Your task to perform on an android device: set default search engine in the chrome app Image 0: 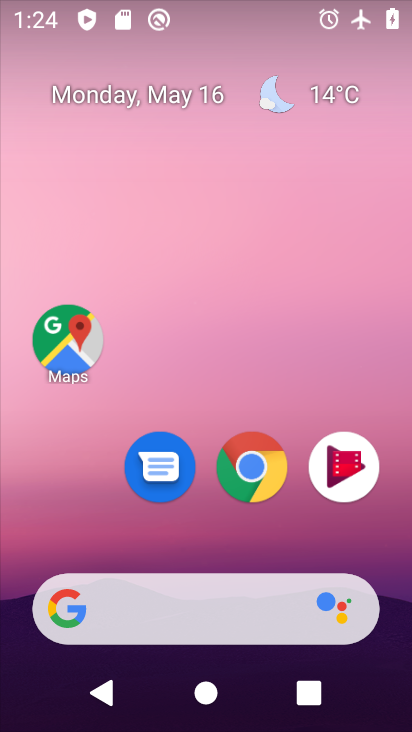
Step 0: drag from (225, 535) to (231, 173)
Your task to perform on an android device: set default search engine in the chrome app Image 1: 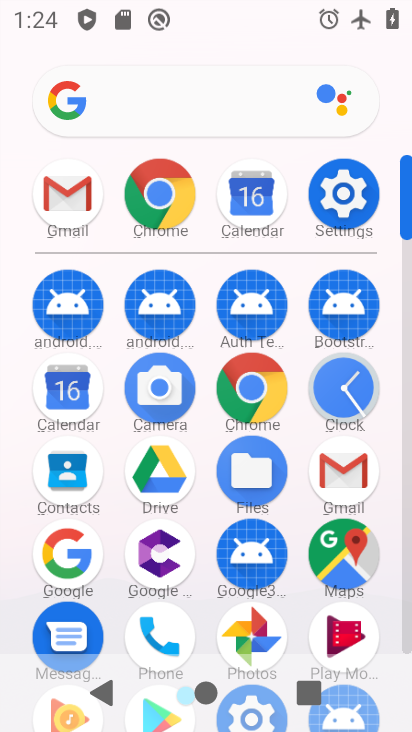
Step 1: click (145, 184)
Your task to perform on an android device: set default search engine in the chrome app Image 2: 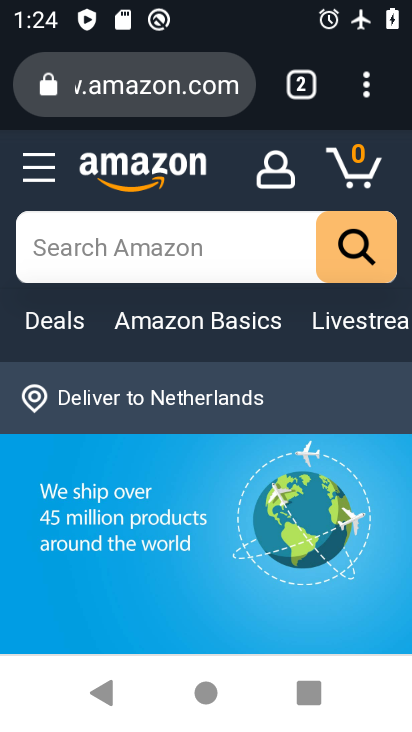
Step 2: click (359, 84)
Your task to perform on an android device: set default search engine in the chrome app Image 3: 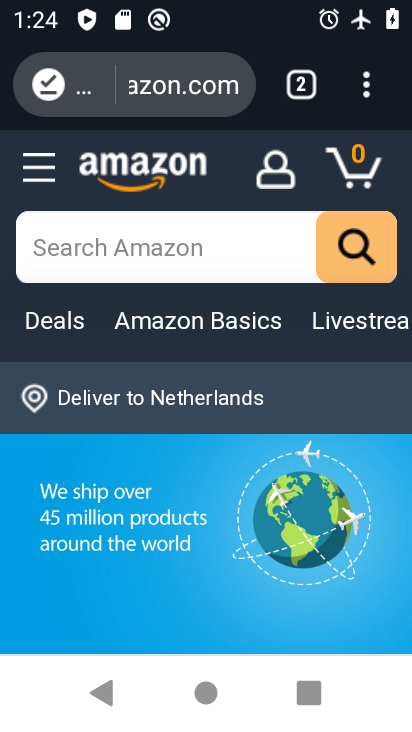
Step 3: click (361, 83)
Your task to perform on an android device: set default search engine in the chrome app Image 4: 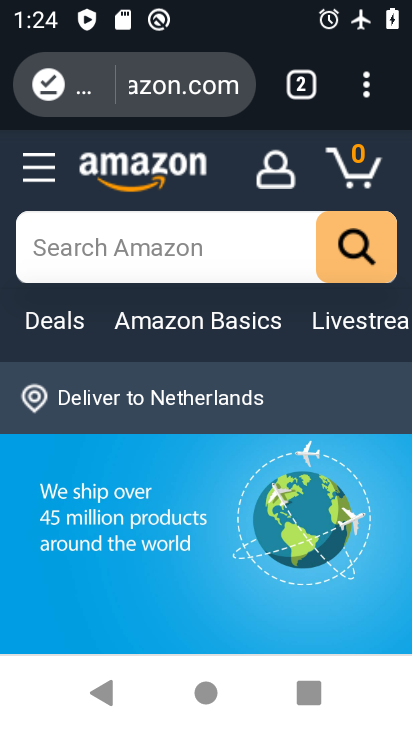
Step 4: click (355, 78)
Your task to perform on an android device: set default search engine in the chrome app Image 5: 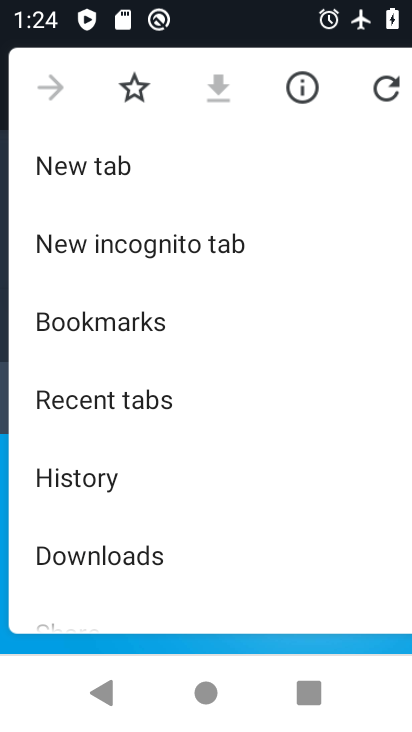
Step 5: drag from (119, 546) to (231, 217)
Your task to perform on an android device: set default search engine in the chrome app Image 6: 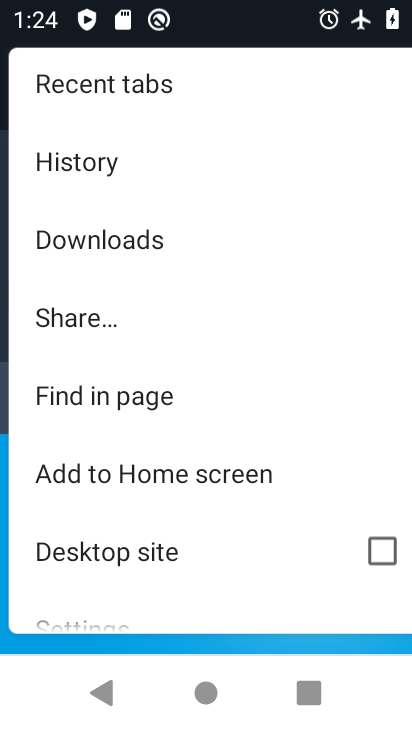
Step 6: drag from (169, 498) to (254, 189)
Your task to perform on an android device: set default search engine in the chrome app Image 7: 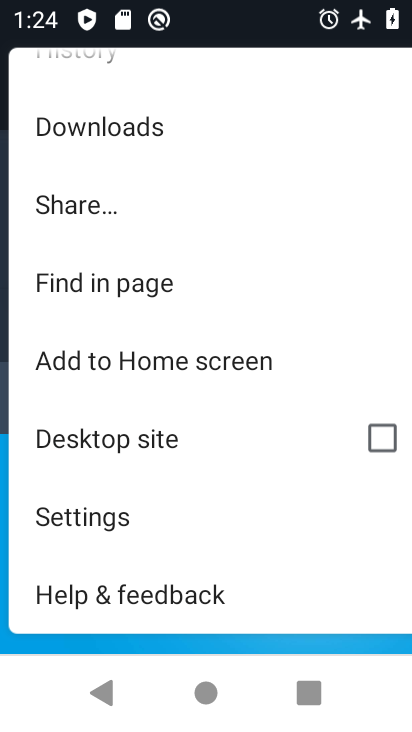
Step 7: click (108, 517)
Your task to perform on an android device: set default search engine in the chrome app Image 8: 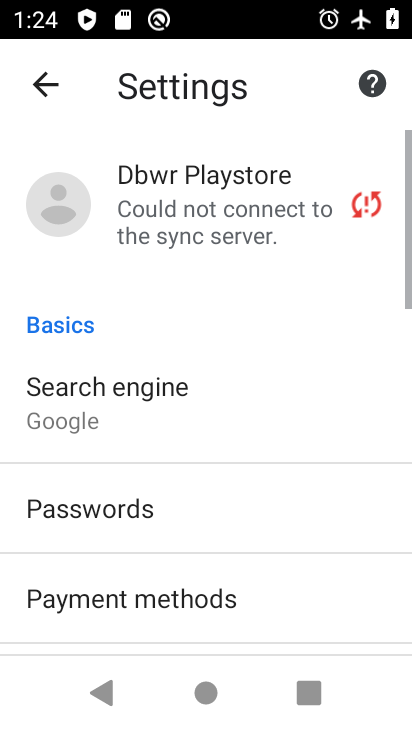
Step 8: drag from (152, 602) to (238, 297)
Your task to perform on an android device: set default search engine in the chrome app Image 9: 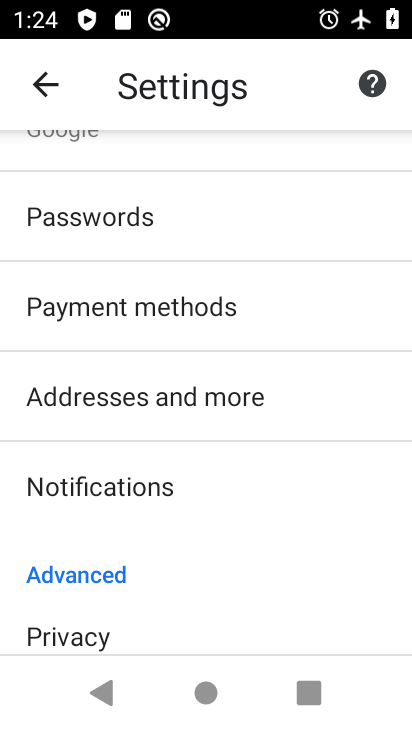
Step 9: drag from (168, 575) to (224, 255)
Your task to perform on an android device: set default search engine in the chrome app Image 10: 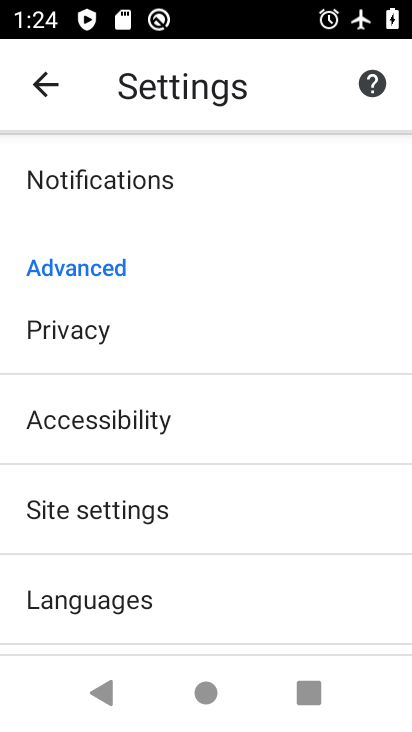
Step 10: click (121, 532)
Your task to perform on an android device: set default search engine in the chrome app Image 11: 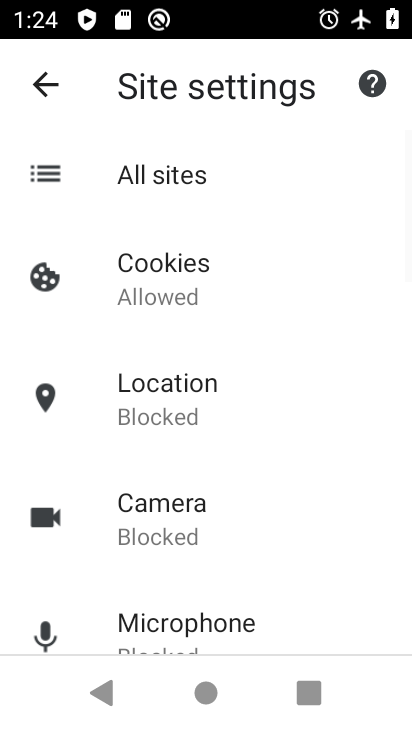
Step 11: click (186, 399)
Your task to perform on an android device: set default search engine in the chrome app Image 12: 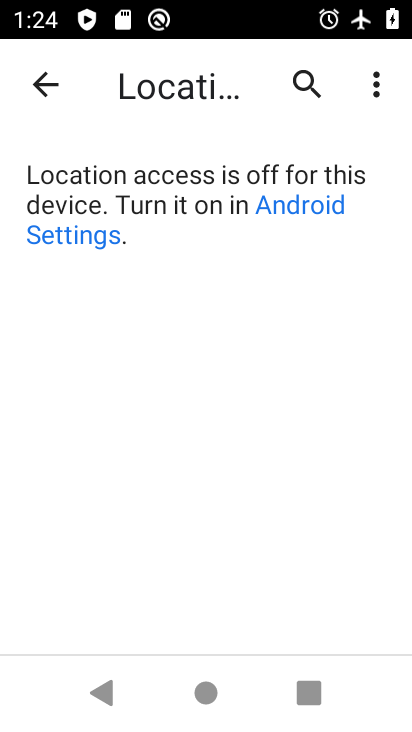
Step 12: task complete